Your task to perform on an android device: turn on javascript in the chrome app Image 0: 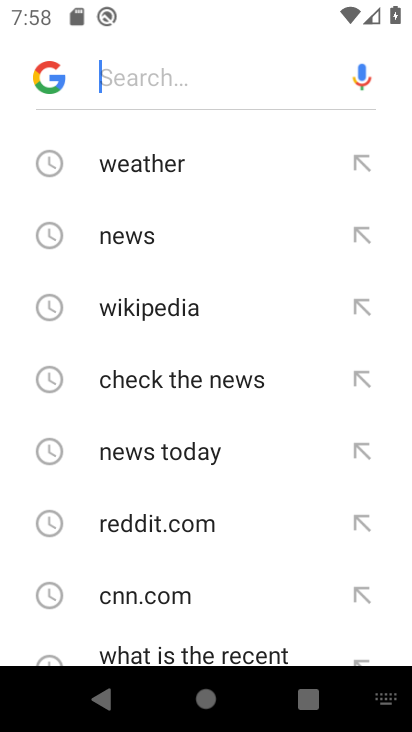
Step 0: press home button
Your task to perform on an android device: turn on javascript in the chrome app Image 1: 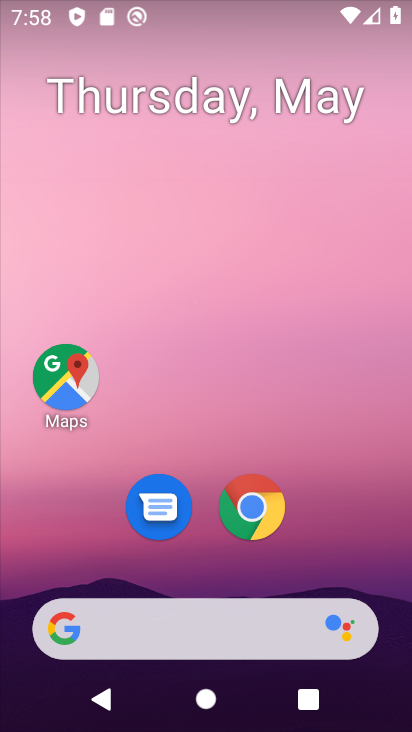
Step 1: click (236, 518)
Your task to perform on an android device: turn on javascript in the chrome app Image 2: 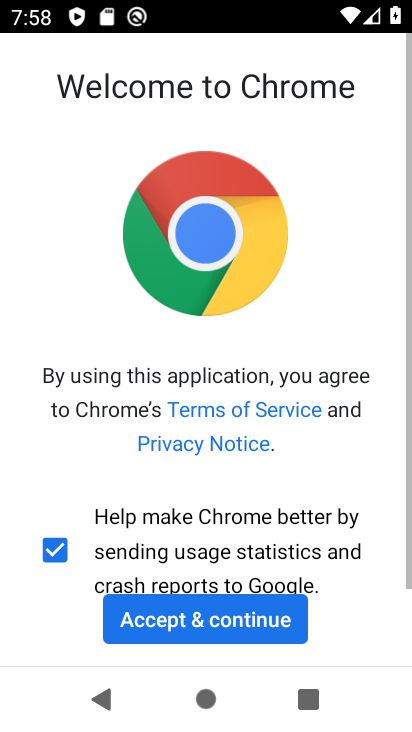
Step 2: click (255, 609)
Your task to perform on an android device: turn on javascript in the chrome app Image 3: 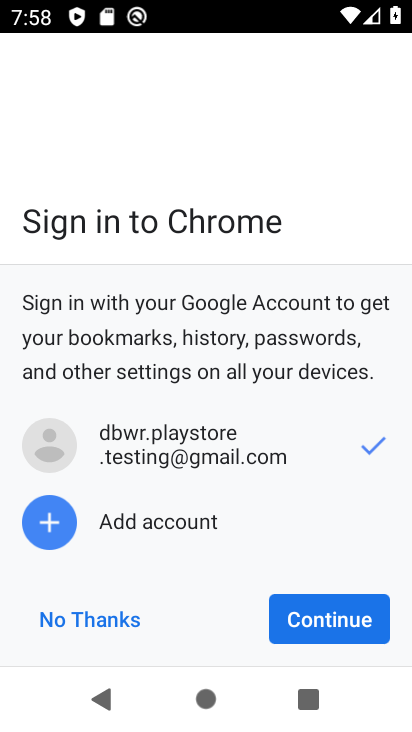
Step 3: click (301, 629)
Your task to perform on an android device: turn on javascript in the chrome app Image 4: 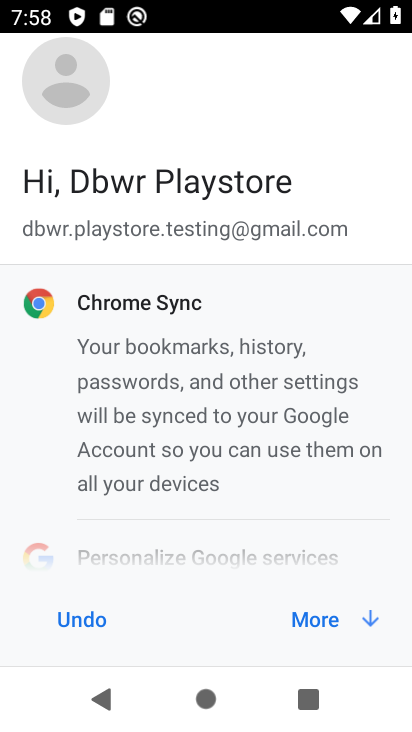
Step 4: click (301, 629)
Your task to perform on an android device: turn on javascript in the chrome app Image 5: 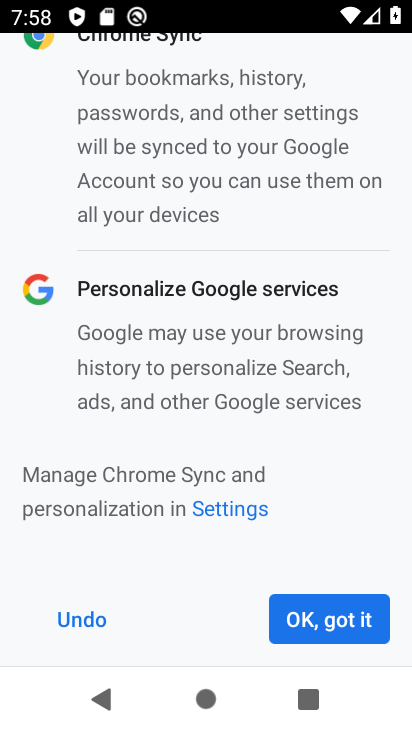
Step 5: click (301, 629)
Your task to perform on an android device: turn on javascript in the chrome app Image 6: 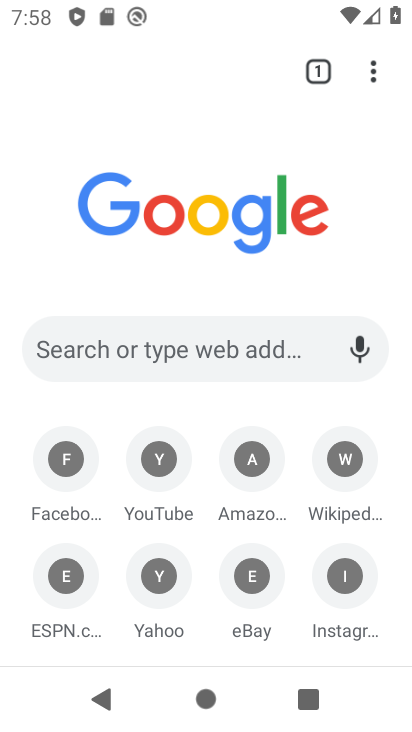
Step 6: drag from (373, 66) to (219, 497)
Your task to perform on an android device: turn on javascript in the chrome app Image 7: 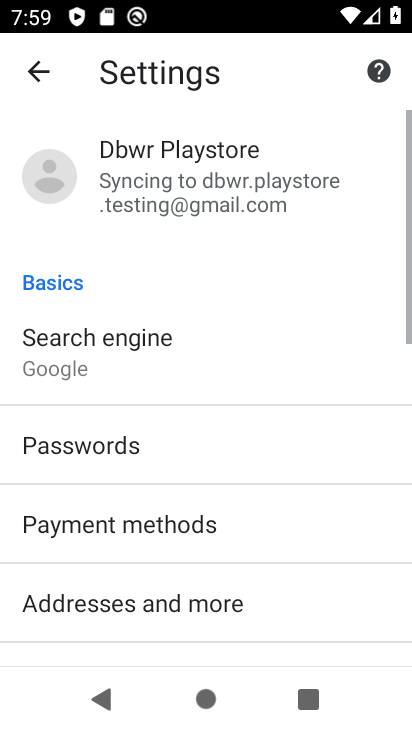
Step 7: drag from (226, 584) to (255, 264)
Your task to perform on an android device: turn on javascript in the chrome app Image 8: 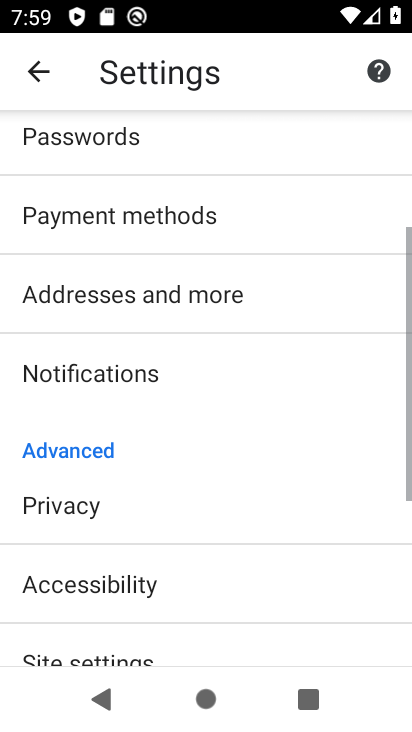
Step 8: drag from (261, 533) to (292, 271)
Your task to perform on an android device: turn on javascript in the chrome app Image 9: 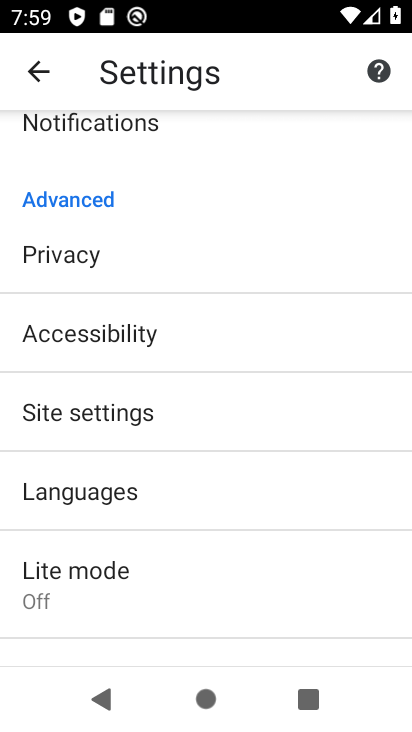
Step 9: click (134, 419)
Your task to perform on an android device: turn on javascript in the chrome app Image 10: 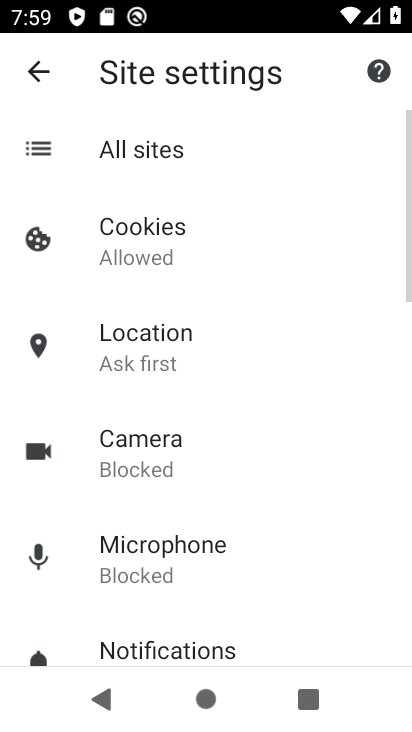
Step 10: drag from (238, 594) to (242, 238)
Your task to perform on an android device: turn on javascript in the chrome app Image 11: 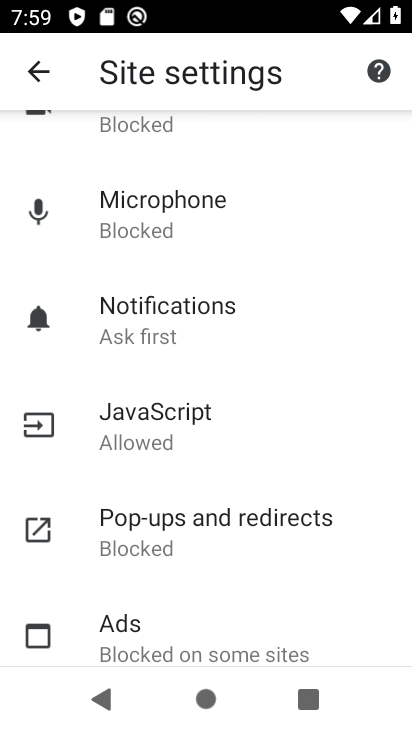
Step 11: click (192, 429)
Your task to perform on an android device: turn on javascript in the chrome app Image 12: 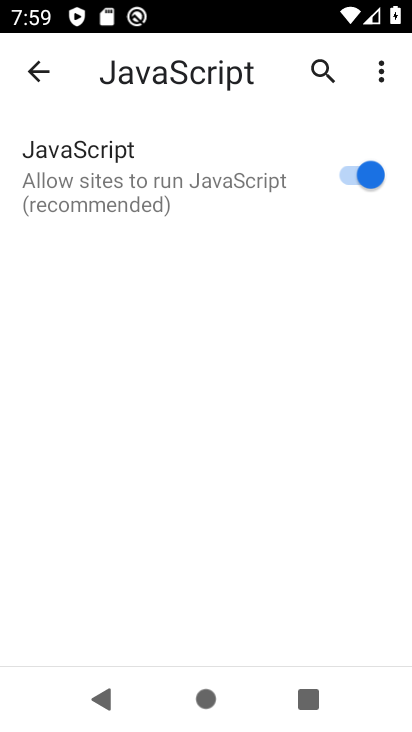
Step 12: task complete